Your task to perform on an android device: turn off location history Image 0: 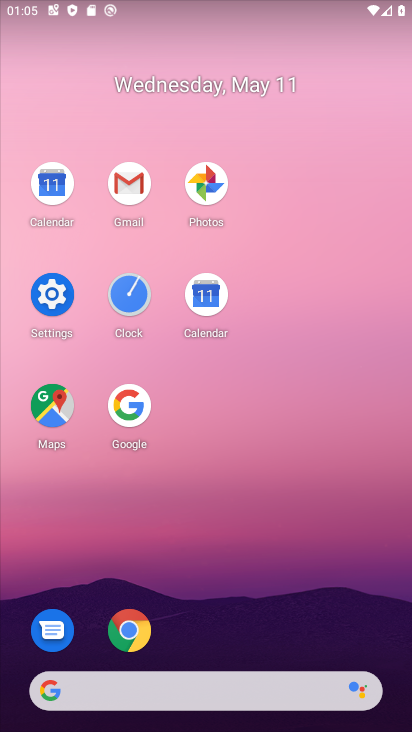
Step 0: click (54, 293)
Your task to perform on an android device: turn off location history Image 1: 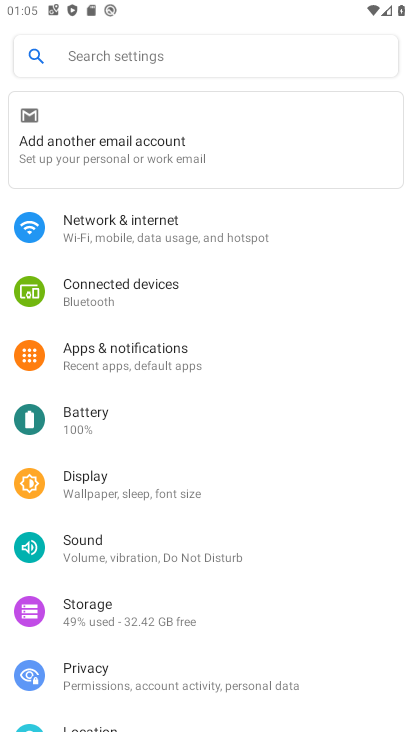
Step 1: drag from (206, 651) to (229, 284)
Your task to perform on an android device: turn off location history Image 2: 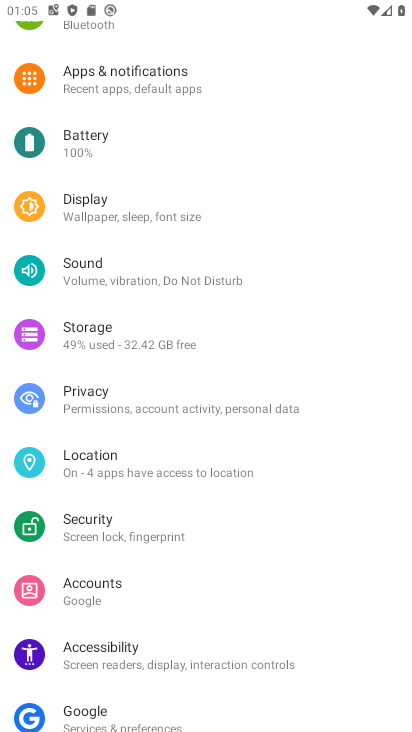
Step 2: click (186, 474)
Your task to perform on an android device: turn off location history Image 3: 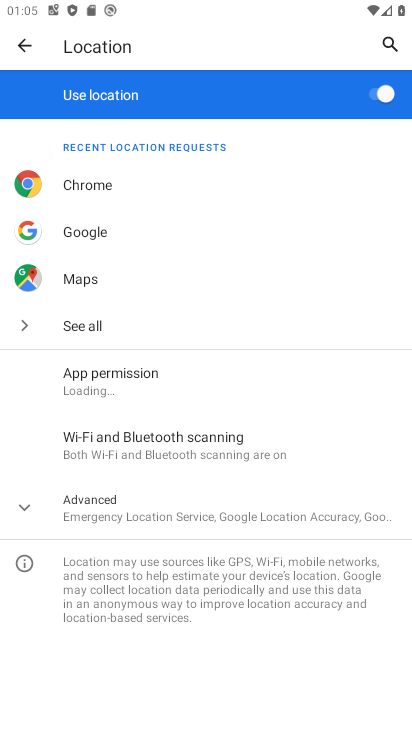
Step 3: click (185, 506)
Your task to perform on an android device: turn off location history Image 4: 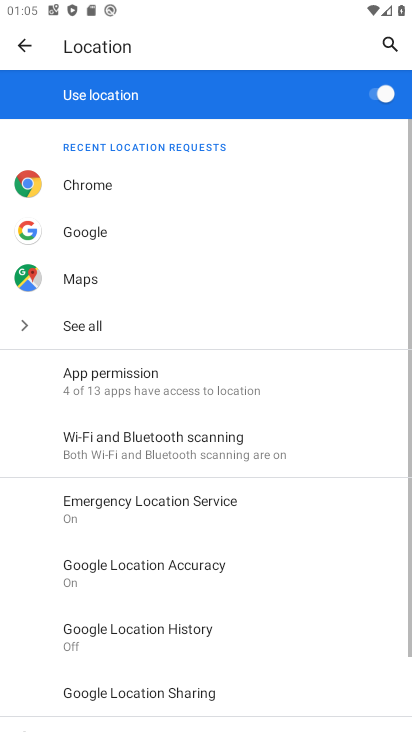
Step 4: click (215, 626)
Your task to perform on an android device: turn off location history Image 5: 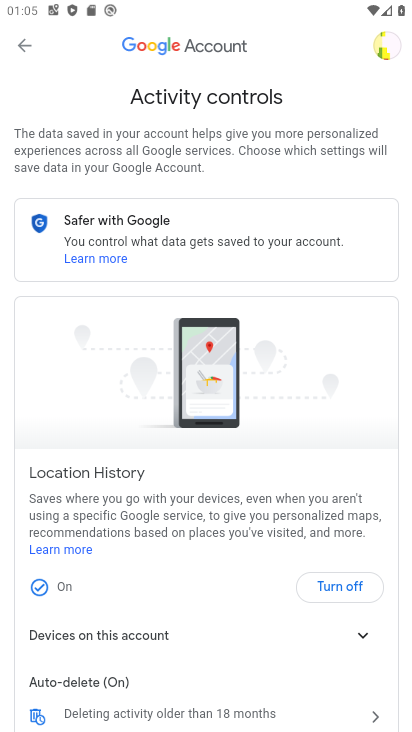
Step 5: click (356, 583)
Your task to perform on an android device: turn off location history Image 6: 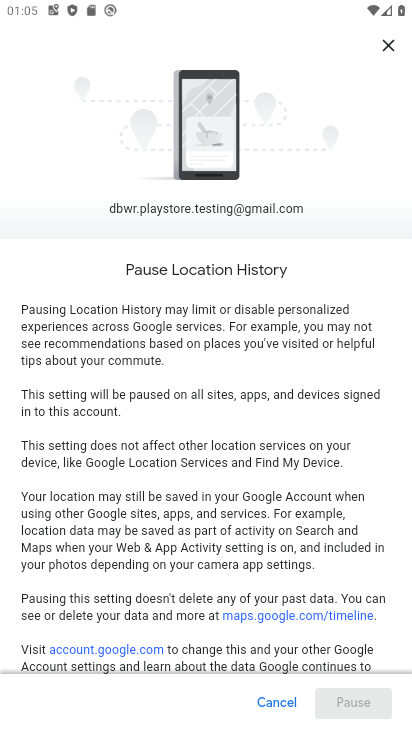
Step 6: drag from (283, 625) to (268, 24)
Your task to perform on an android device: turn off location history Image 7: 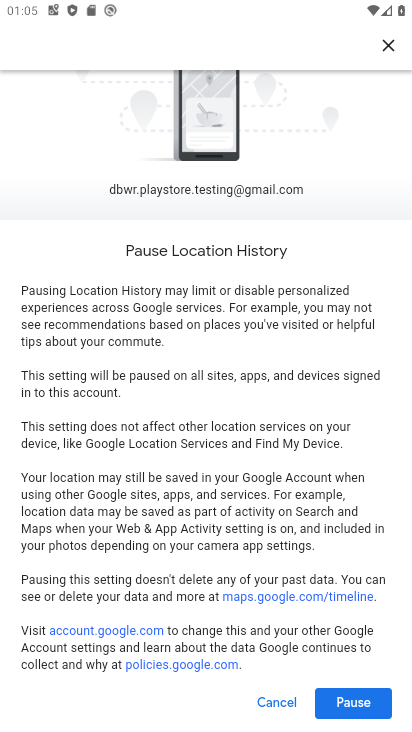
Step 7: click (332, 703)
Your task to perform on an android device: turn off location history Image 8: 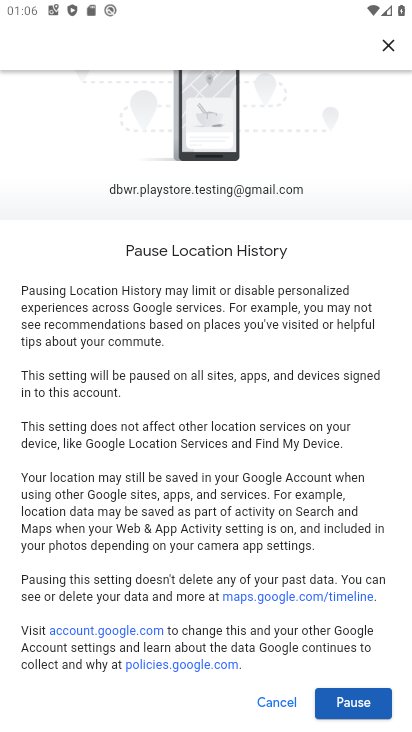
Step 8: click (359, 708)
Your task to perform on an android device: turn off location history Image 9: 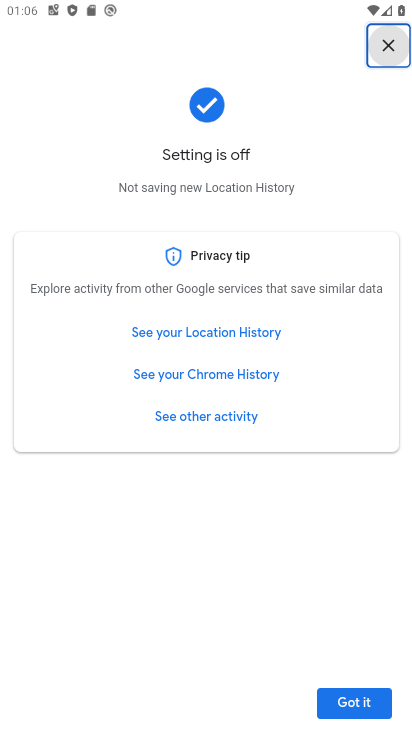
Step 9: click (376, 710)
Your task to perform on an android device: turn off location history Image 10: 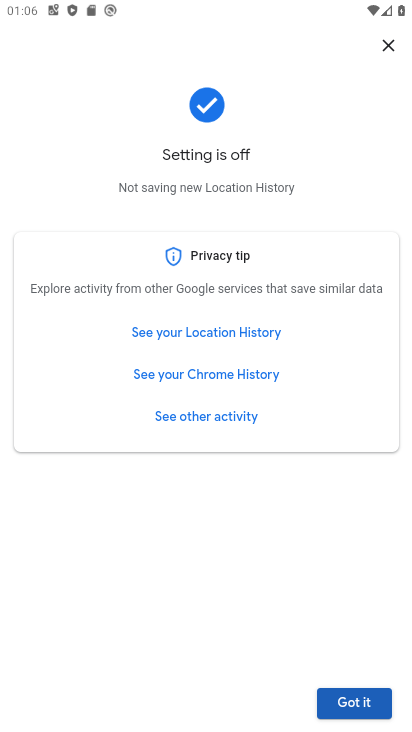
Step 10: click (347, 704)
Your task to perform on an android device: turn off location history Image 11: 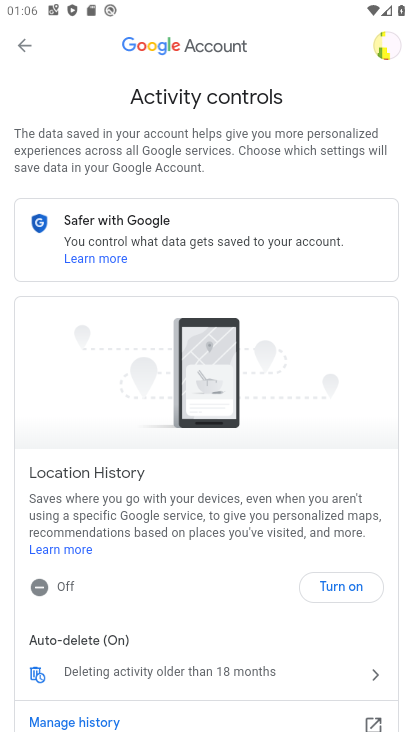
Step 11: task complete